Your task to perform on an android device: delete the emails in spam in the gmail app Image 0: 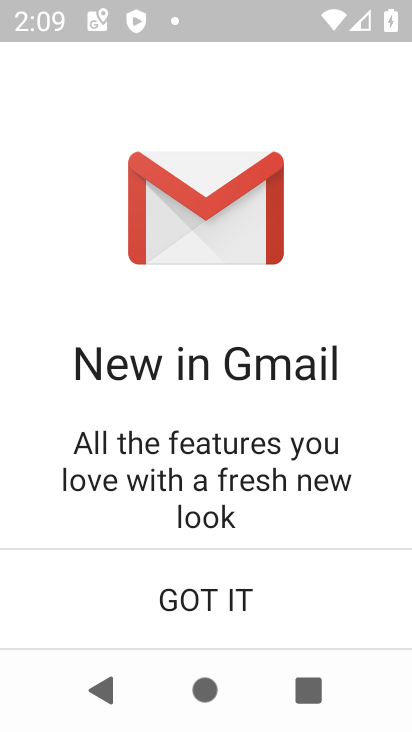
Step 0: click (128, 604)
Your task to perform on an android device: delete the emails in spam in the gmail app Image 1: 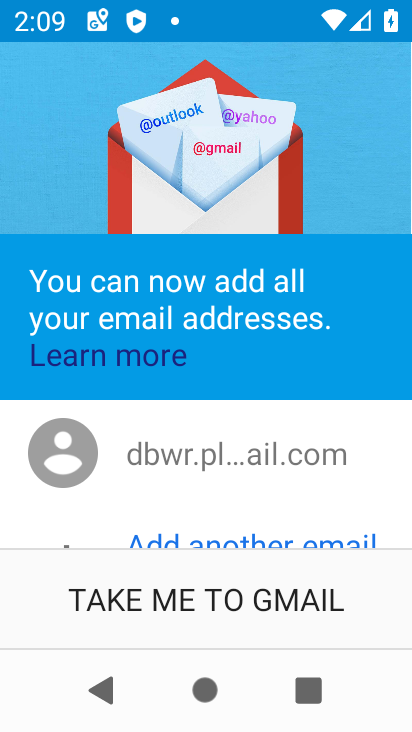
Step 1: click (226, 611)
Your task to perform on an android device: delete the emails in spam in the gmail app Image 2: 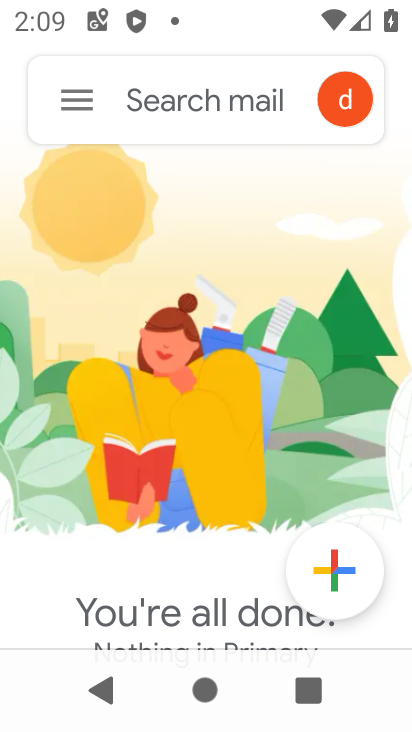
Step 2: drag from (75, 84) to (118, 301)
Your task to perform on an android device: delete the emails in spam in the gmail app Image 3: 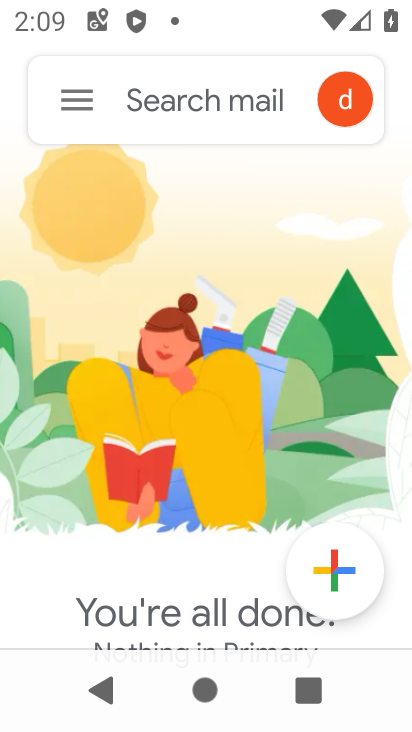
Step 3: click (53, 83)
Your task to perform on an android device: delete the emails in spam in the gmail app Image 4: 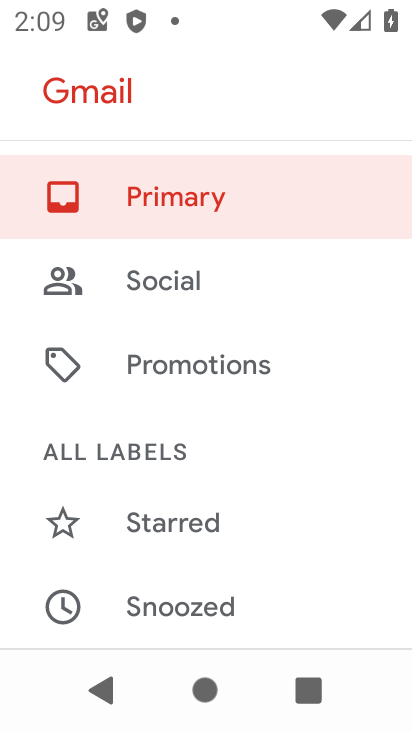
Step 4: drag from (187, 627) to (333, 111)
Your task to perform on an android device: delete the emails in spam in the gmail app Image 5: 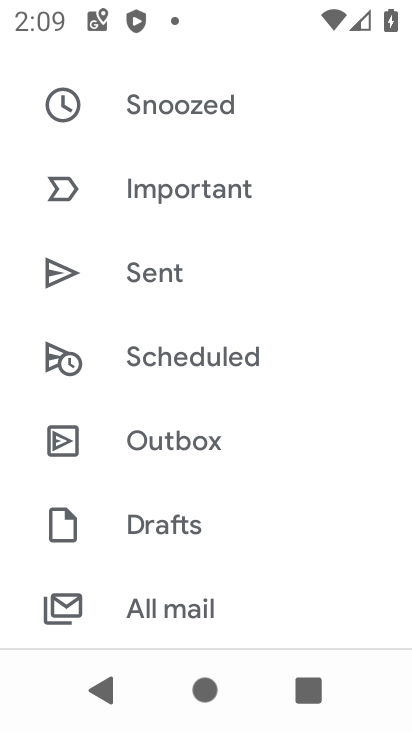
Step 5: drag from (169, 583) to (274, 202)
Your task to perform on an android device: delete the emails in spam in the gmail app Image 6: 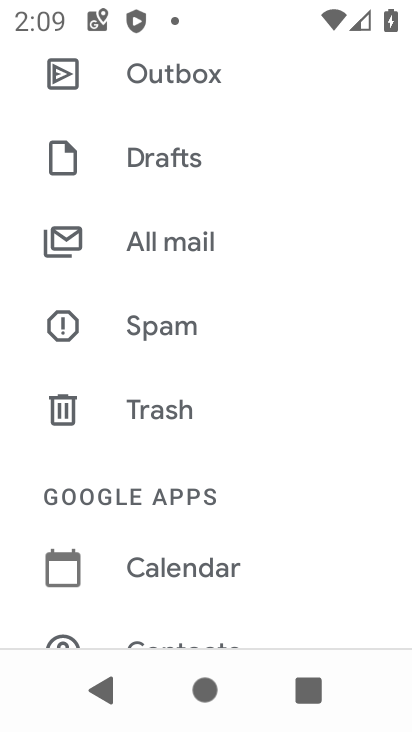
Step 6: click (220, 318)
Your task to perform on an android device: delete the emails in spam in the gmail app Image 7: 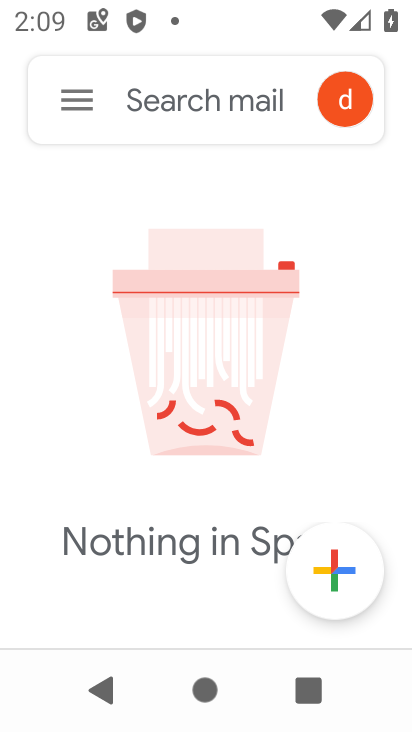
Step 7: task complete